Your task to perform on an android device: Open the phone app and click the voicemail tab. Image 0: 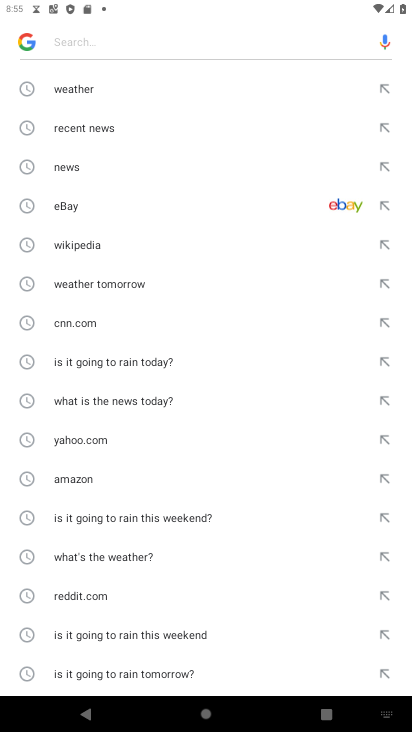
Step 0: press home button
Your task to perform on an android device: Open the phone app and click the voicemail tab. Image 1: 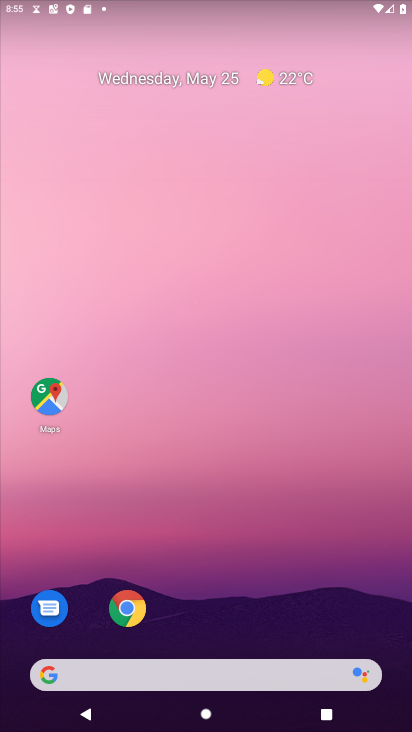
Step 1: drag from (223, 550) to (229, 107)
Your task to perform on an android device: Open the phone app and click the voicemail tab. Image 2: 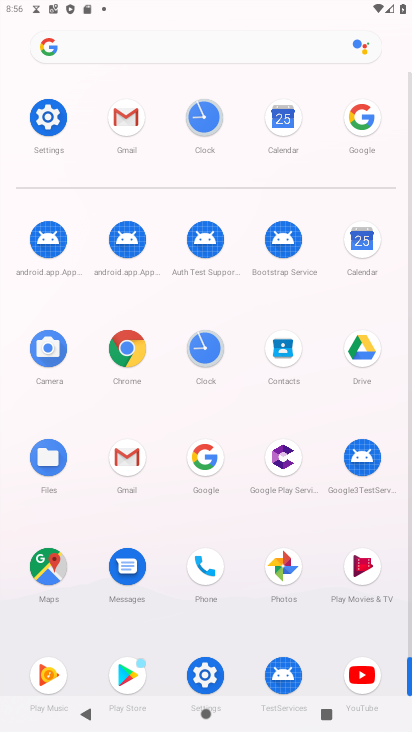
Step 2: click (201, 568)
Your task to perform on an android device: Open the phone app and click the voicemail tab. Image 3: 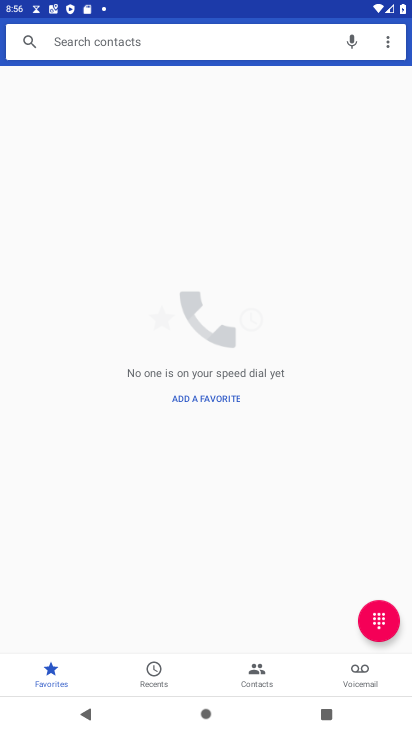
Step 3: click (359, 667)
Your task to perform on an android device: Open the phone app and click the voicemail tab. Image 4: 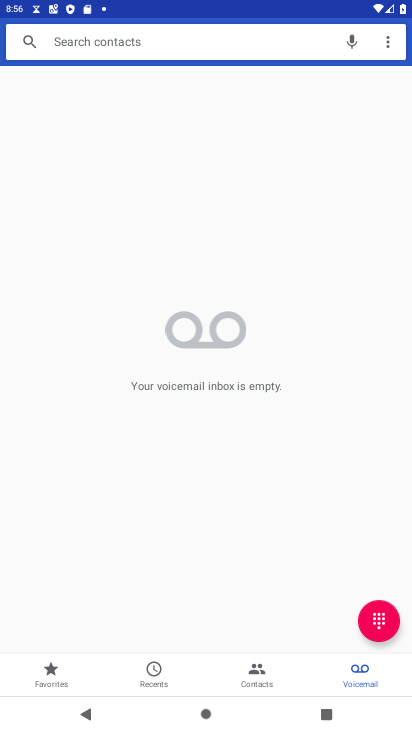
Step 4: task complete